Your task to perform on an android device: Show me popular games on the Play Store Image 0: 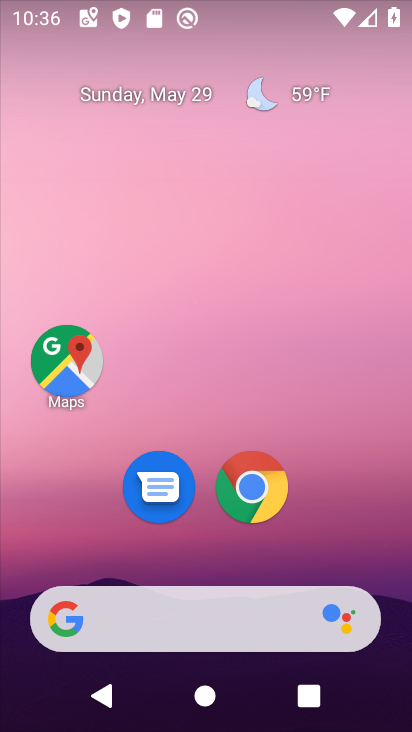
Step 0: drag from (394, 702) to (355, 187)
Your task to perform on an android device: Show me popular games on the Play Store Image 1: 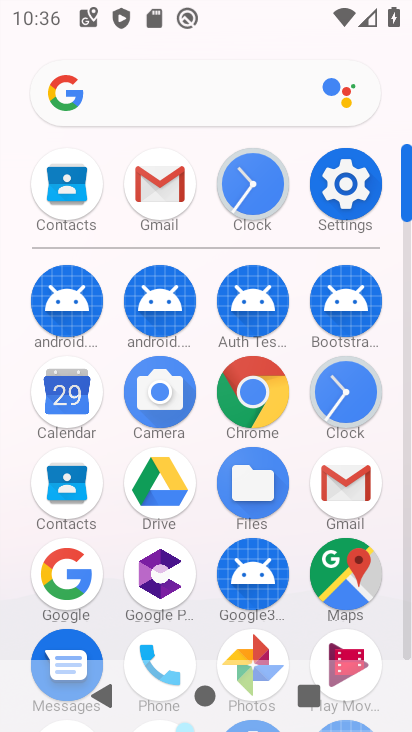
Step 1: drag from (200, 619) to (179, 296)
Your task to perform on an android device: Show me popular games on the Play Store Image 2: 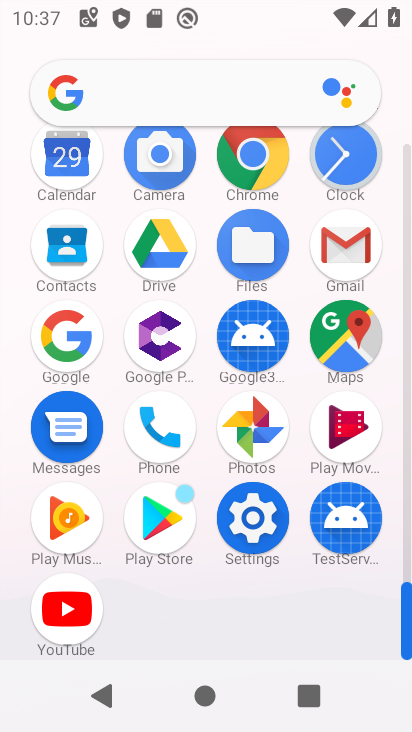
Step 2: click (160, 518)
Your task to perform on an android device: Show me popular games on the Play Store Image 3: 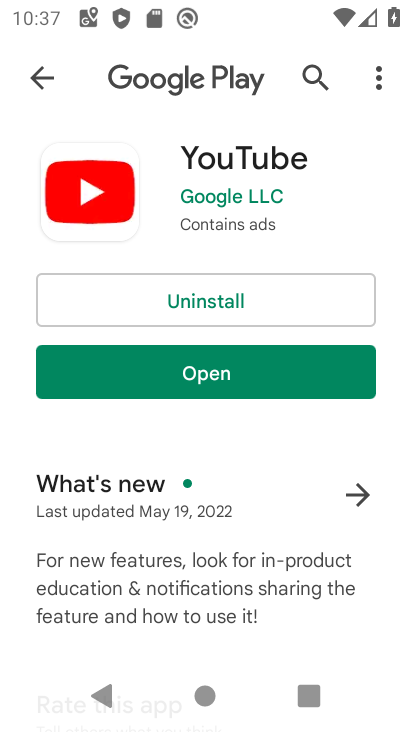
Step 3: click (234, 302)
Your task to perform on an android device: Show me popular games on the Play Store Image 4: 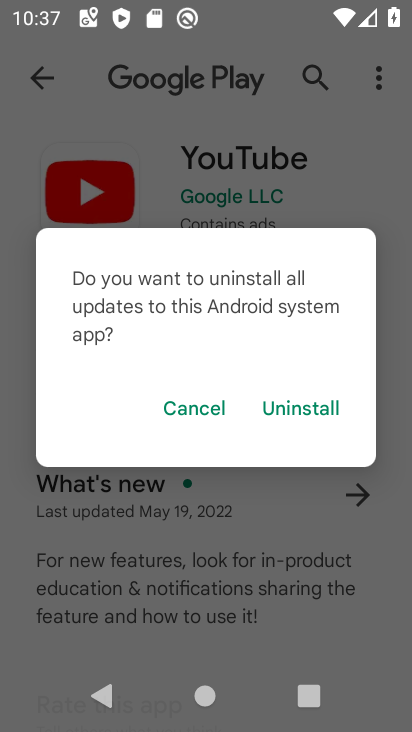
Step 4: click (170, 409)
Your task to perform on an android device: Show me popular games on the Play Store Image 5: 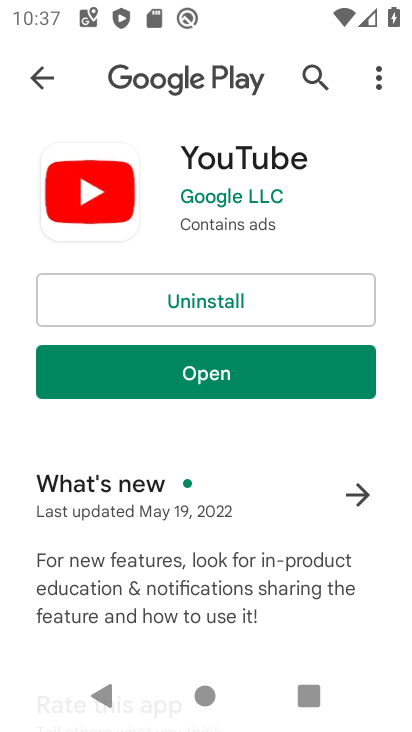
Step 5: click (234, 371)
Your task to perform on an android device: Show me popular games on the Play Store Image 6: 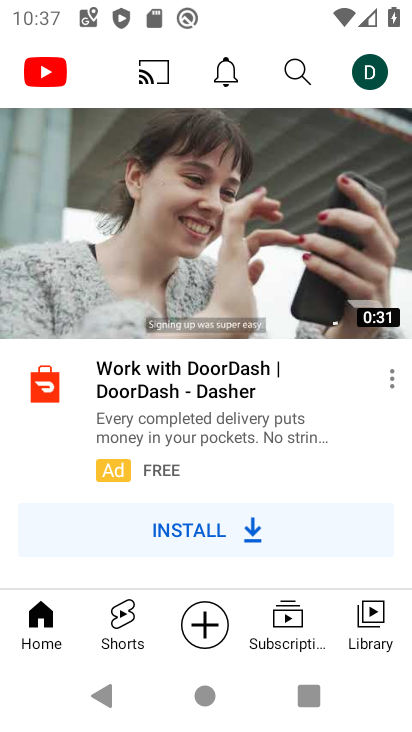
Step 6: press back button
Your task to perform on an android device: Show me popular games on the Play Store Image 7: 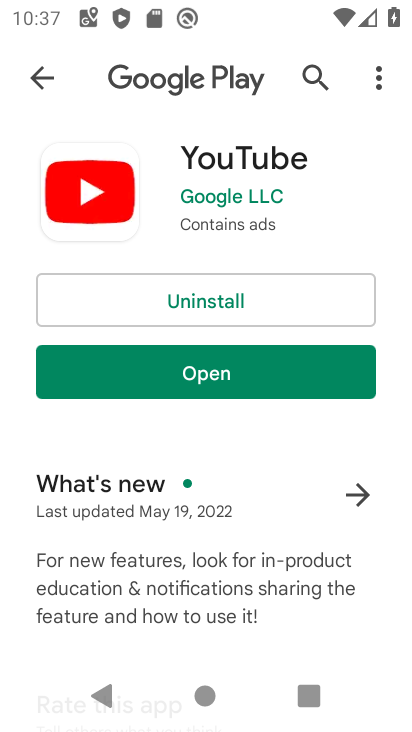
Step 7: press back button
Your task to perform on an android device: Show me popular games on the Play Store Image 8: 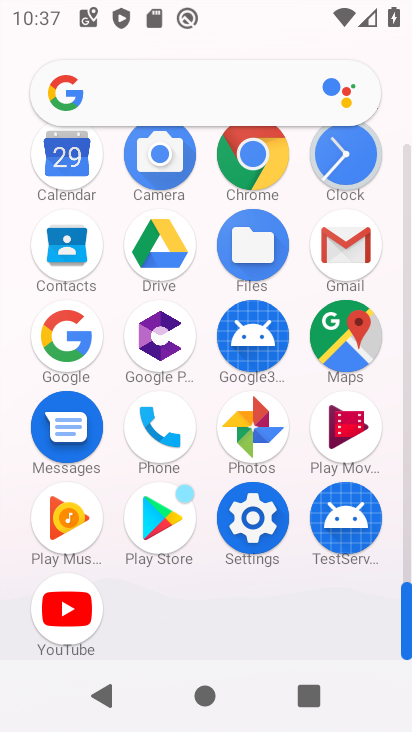
Step 8: click (160, 530)
Your task to perform on an android device: Show me popular games on the Play Store Image 9: 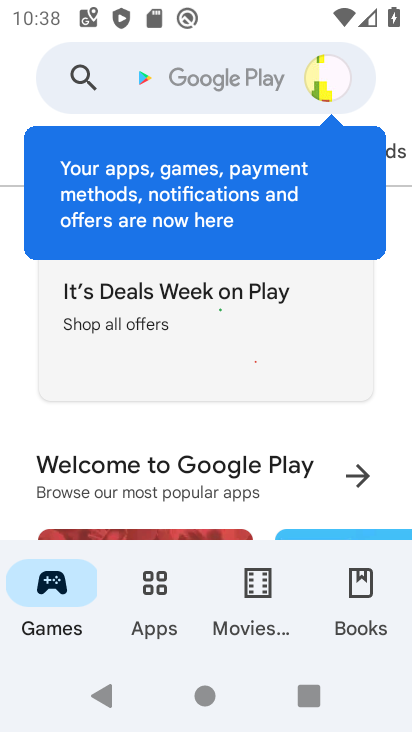
Step 9: click (163, 83)
Your task to perform on an android device: Show me popular games on the Play Store Image 10: 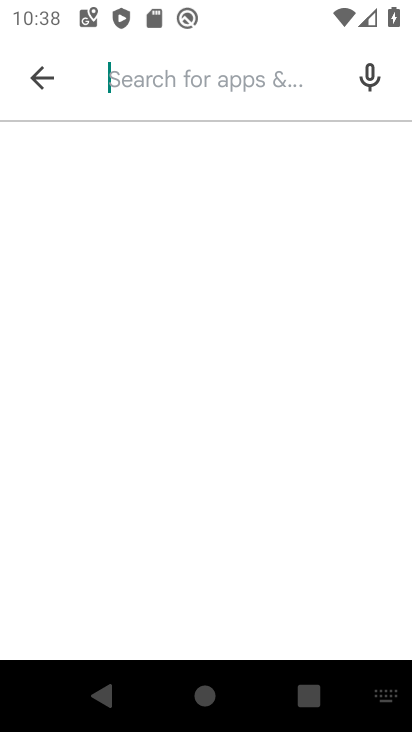
Step 10: type "popular games on the Play Store"
Your task to perform on an android device: Show me popular games on the Play Store Image 11: 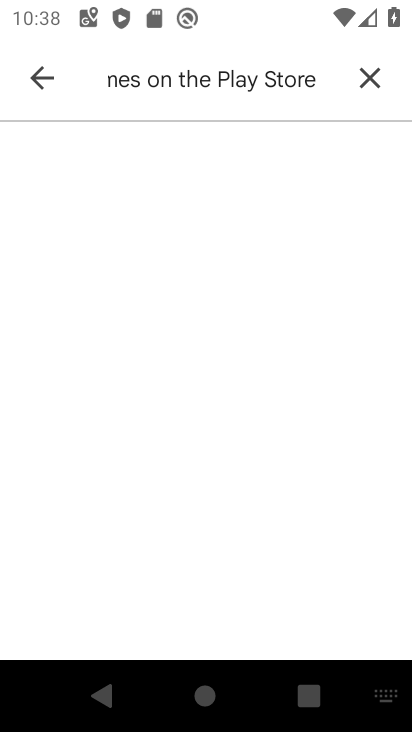
Step 11: click (369, 75)
Your task to perform on an android device: Show me popular games on the Play Store Image 12: 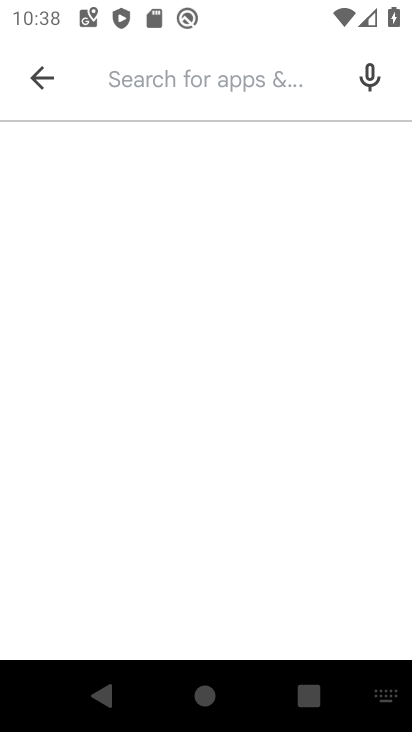
Step 12: type "popular games"
Your task to perform on an android device: Show me popular games on the Play Store Image 13: 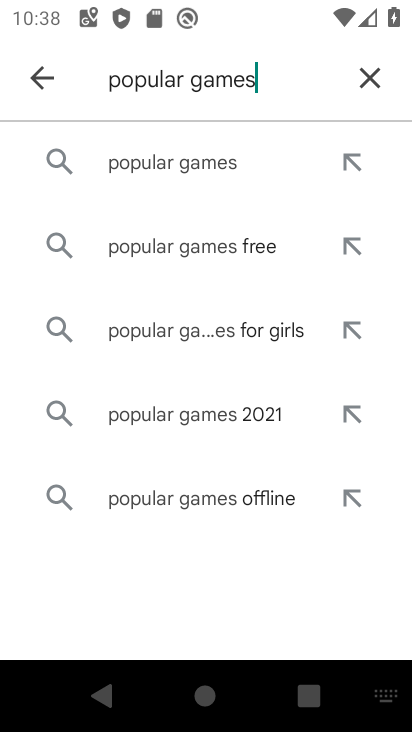
Step 13: click (168, 170)
Your task to perform on an android device: Show me popular games on the Play Store Image 14: 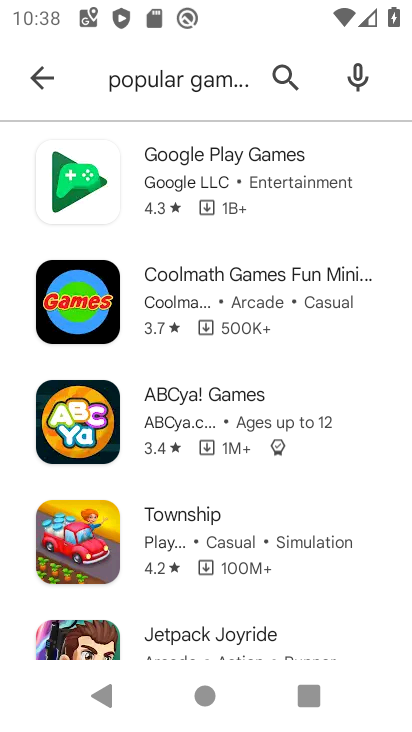
Step 14: task complete